Your task to perform on an android device: toggle priority inbox in the gmail app Image 0: 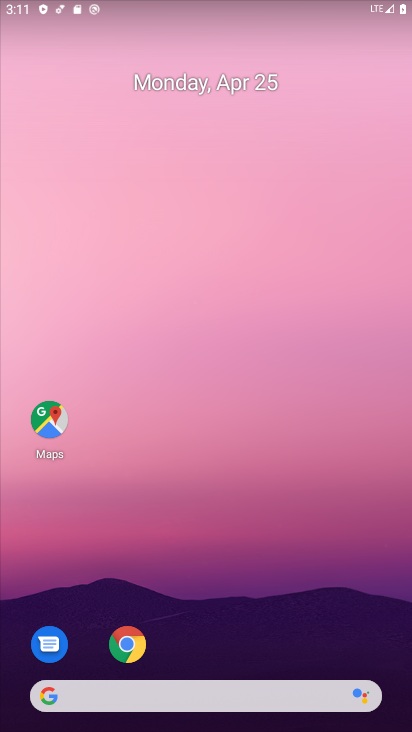
Step 0: drag from (228, 309) to (223, 201)
Your task to perform on an android device: toggle priority inbox in the gmail app Image 1: 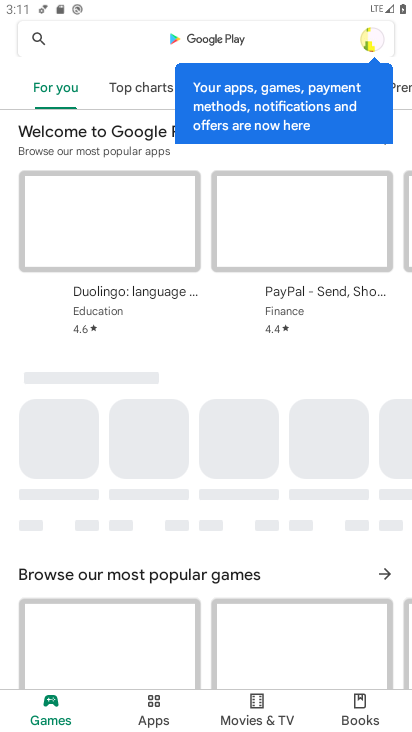
Step 1: press home button
Your task to perform on an android device: toggle priority inbox in the gmail app Image 2: 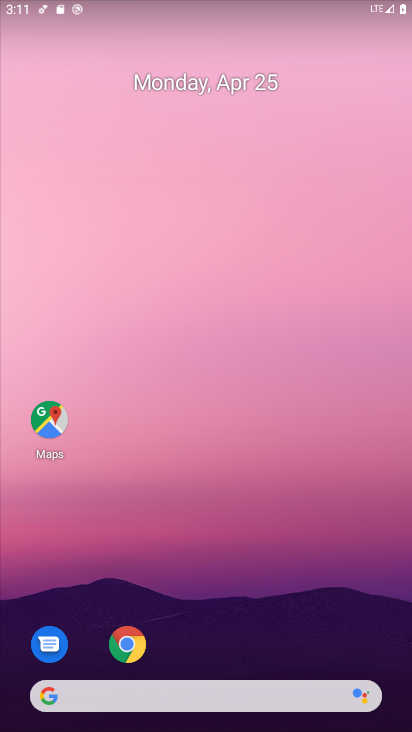
Step 2: drag from (214, 654) to (197, 125)
Your task to perform on an android device: toggle priority inbox in the gmail app Image 3: 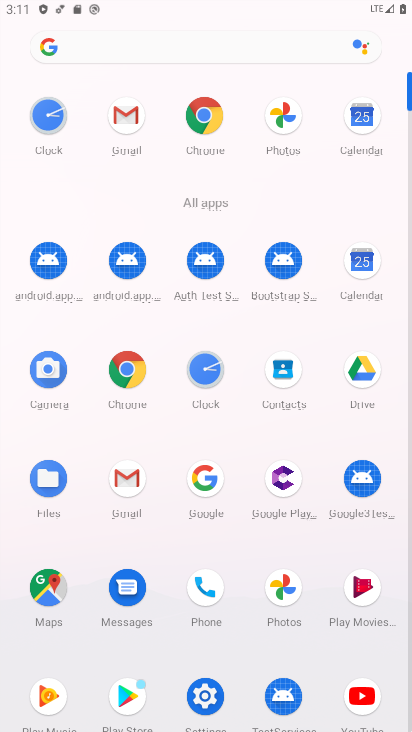
Step 3: click (136, 488)
Your task to perform on an android device: toggle priority inbox in the gmail app Image 4: 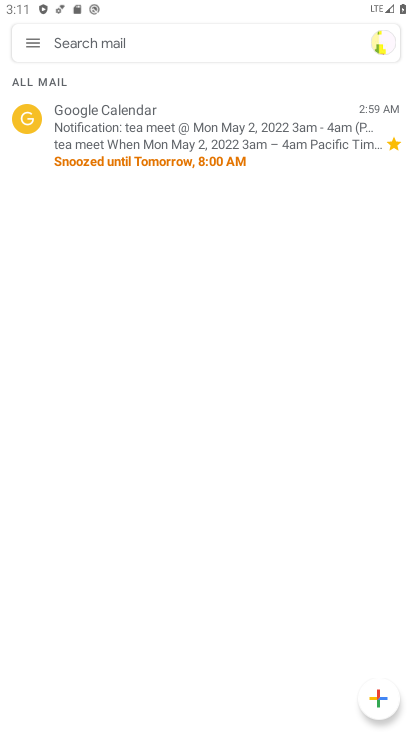
Step 4: click (29, 49)
Your task to perform on an android device: toggle priority inbox in the gmail app Image 5: 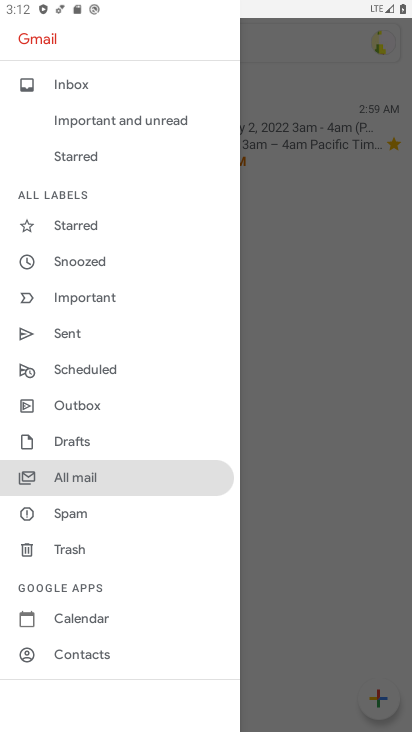
Step 5: drag from (154, 641) to (145, 253)
Your task to perform on an android device: toggle priority inbox in the gmail app Image 6: 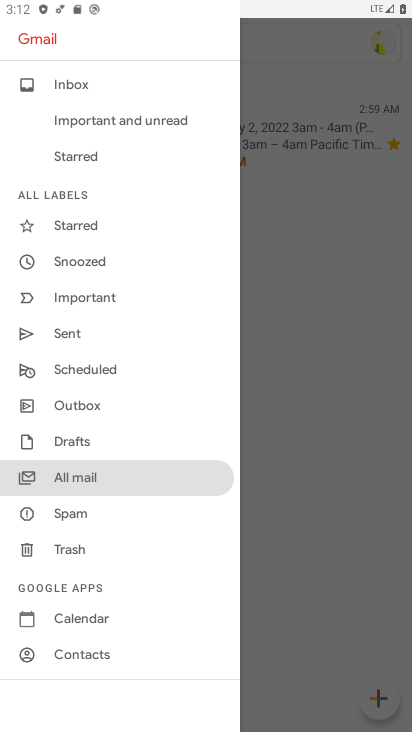
Step 6: drag from (148, 632) to (151, 321)
Your task to perform on an android device: toggle priority inbox in the gmail app Image 7: 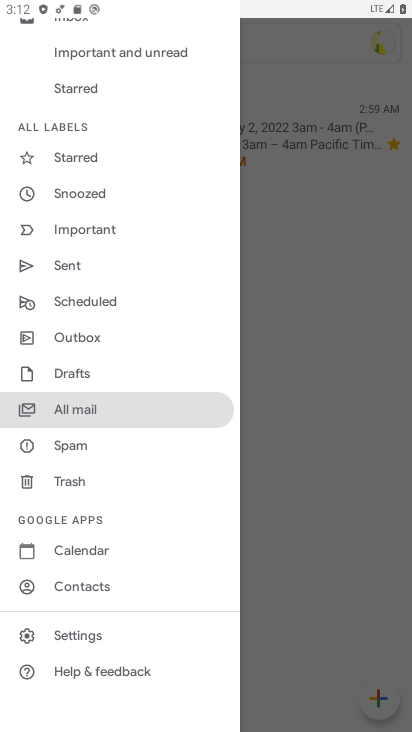
Step 7: click (118, 643)
Your task to perform on an android device: toggle priority inbox in the gmail app Image 8: 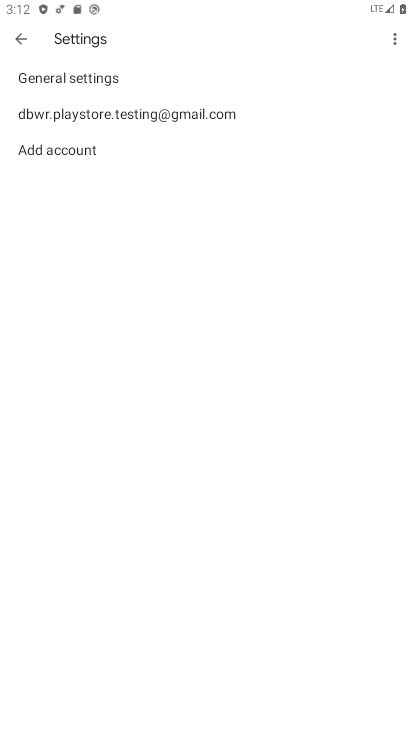
Step 8: click (114, 114)
Your task to perform on an android device: toggle priority inbox in the gmail app Image 9: 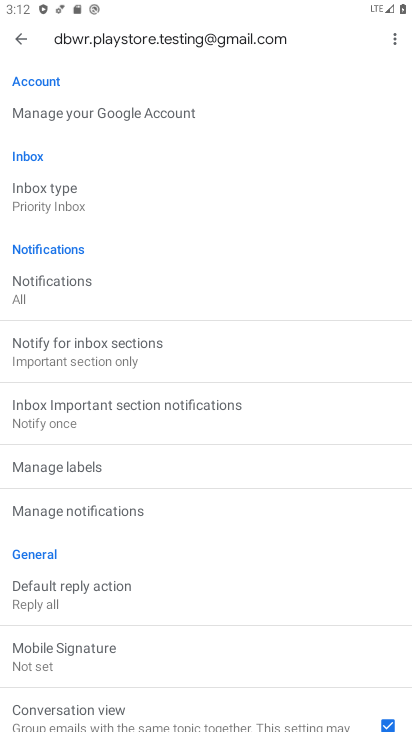
Step 9: click (112, 203)
Your task to perform on an android device: toggle priority inbox in the gmail app Image 10: 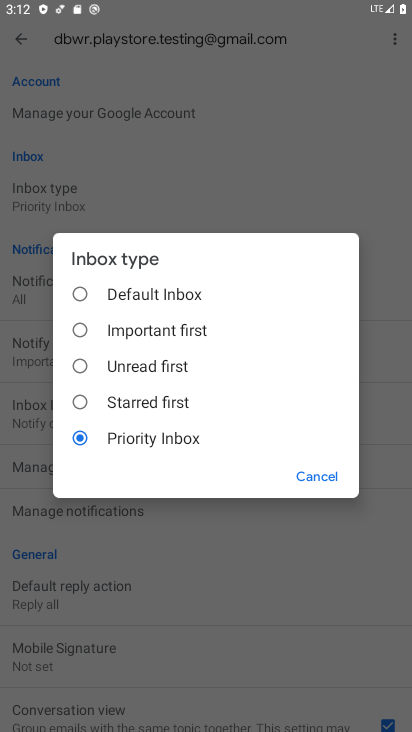
Step 10: click (149, 298)
Your task to perform on an android device: toggle priority inbox in the gmail app Image 11: 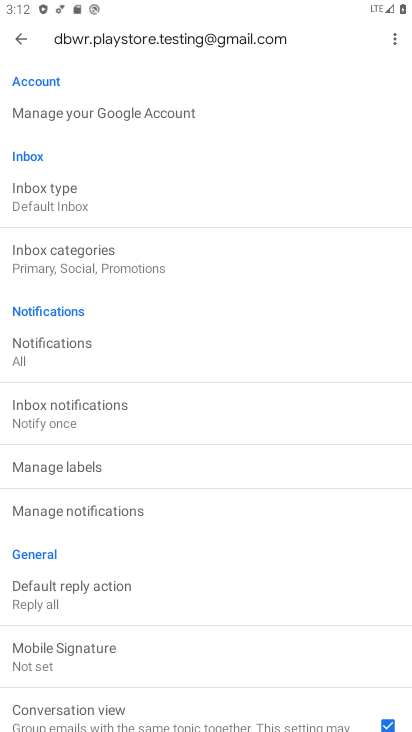
Step 11: task complete